Your task to perform on an android device: Open the camera Image 0: 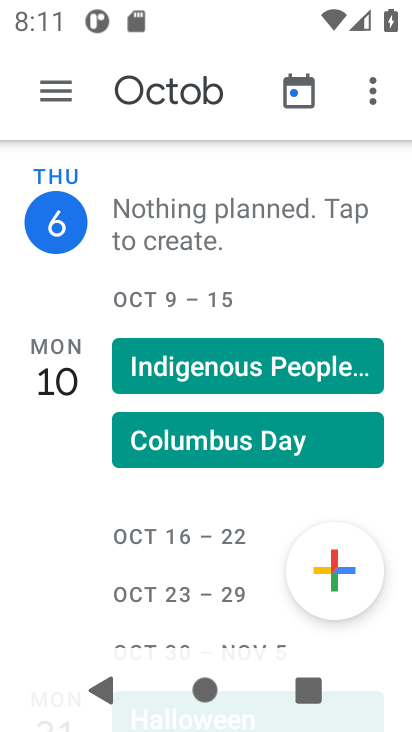
Step 0: press home button
Your task to perform on an android device: Open the camera Image 1: 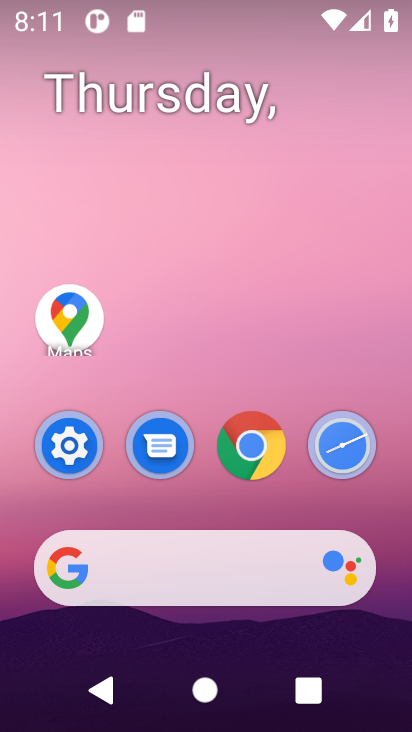
Step 1: drag from (190, 514) to (173, 6)
Your task to perform on an android device: Open the camera Image 2: 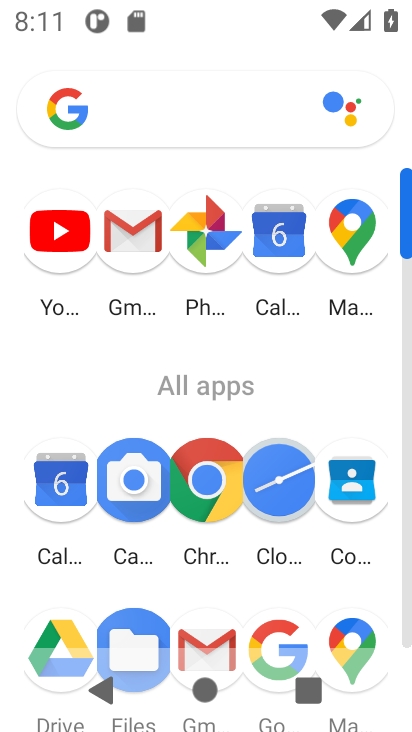
Step 2: click (102, 496)
Your task to perform on an android device: Open the camera Image 3: 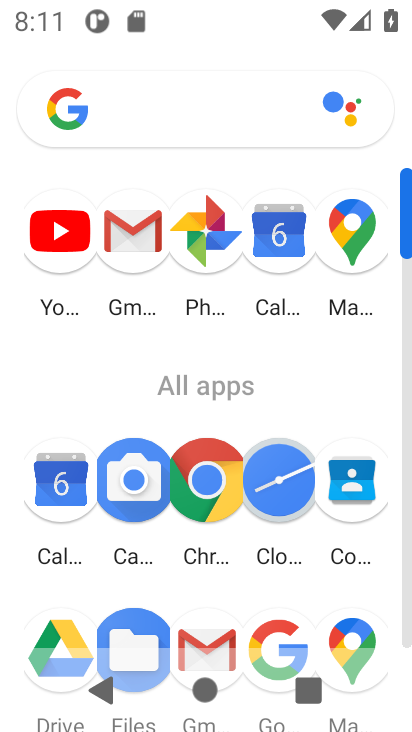
Step 3: task complete